Your task to perform on an android device: allow notifications from all sites in the chrome app Image 0: 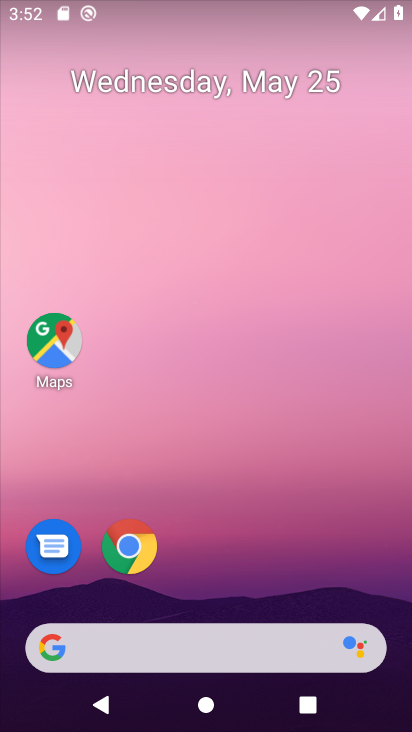
Step 0: drag from (231, 598) to (192, 257)
Your task to perform on an android device: allow notifications from all sites in the chrome app Image 1: 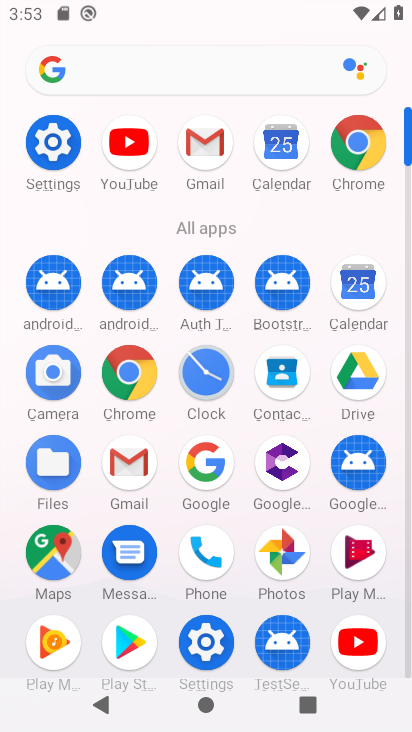
Step 1: click (54, 131)
Your task to perform on an android device: allow notifications from all sites in the chrome app Image 2: 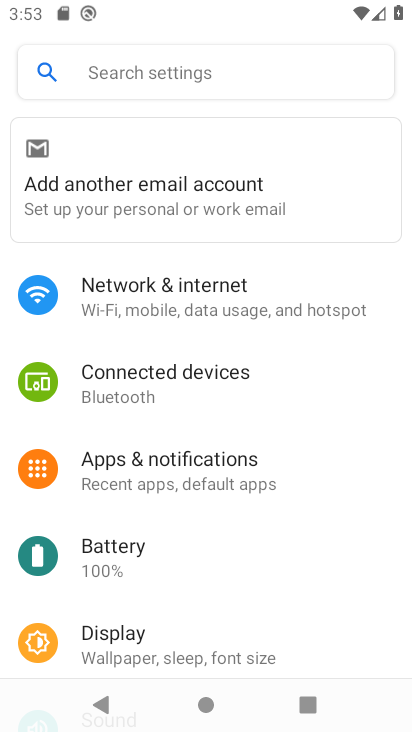
Step 2: press home button
Your task to perform on an android device: allow notifications from all sites in the chrome app Image 3: 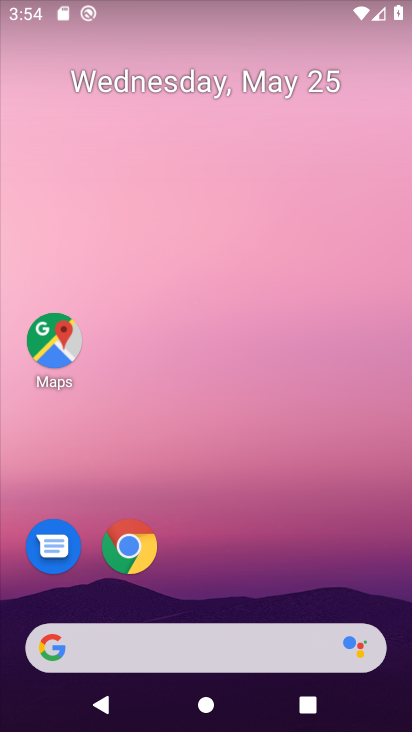
Step 3: click (140, 560)
Your task to perform on an android device: allow notifications from all sites in the chrome app Image 4: 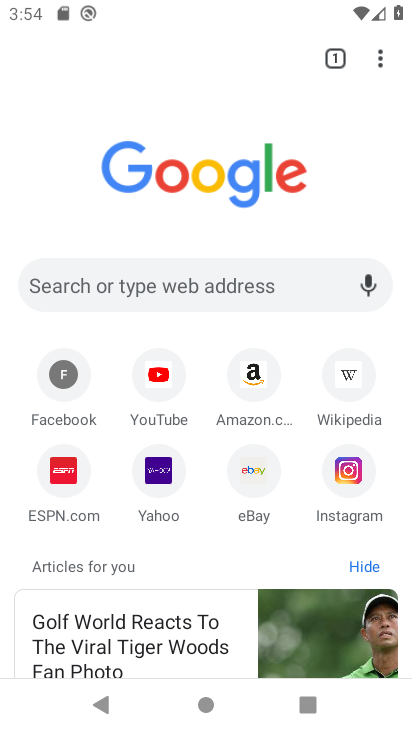
Step 4: click (380, 47)
Your task to perform on an android device: allow notifications from all sites in the chrome app Image 5: 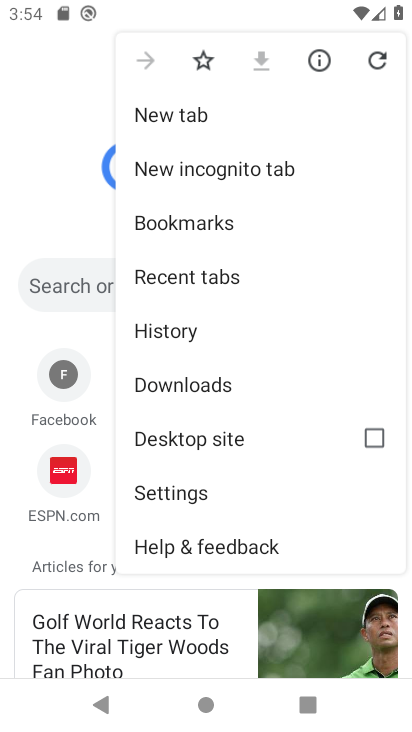
Step 5: click (204, 509)
Your task to perform on an android device: allow notifications from all sites in the chrome app Image 6: 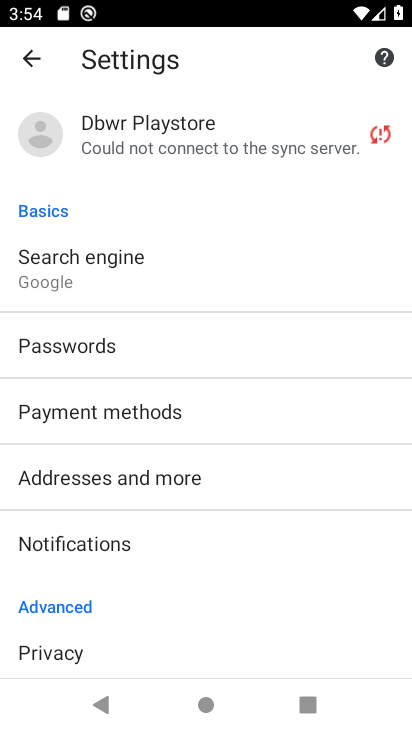
Step 6: drag from (197, 627) to (165, 229)
Your task to perform on an android device: allow notifications from all sites in the chrome app Image 7: 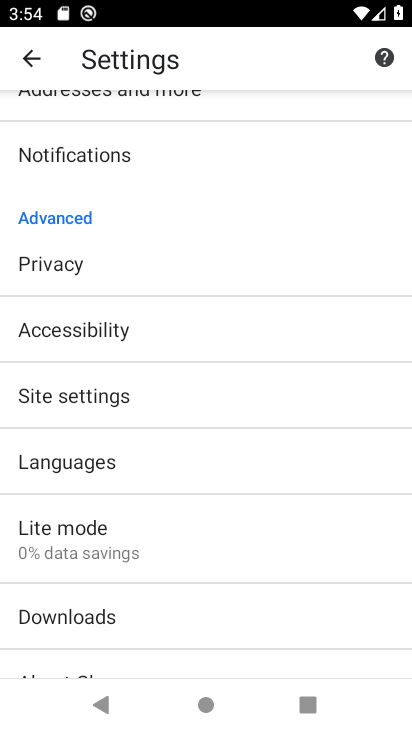
Step 7: click (147, 409)
Your task to perform on an android device: allow notifications from all sites in the chrome app Image 8: 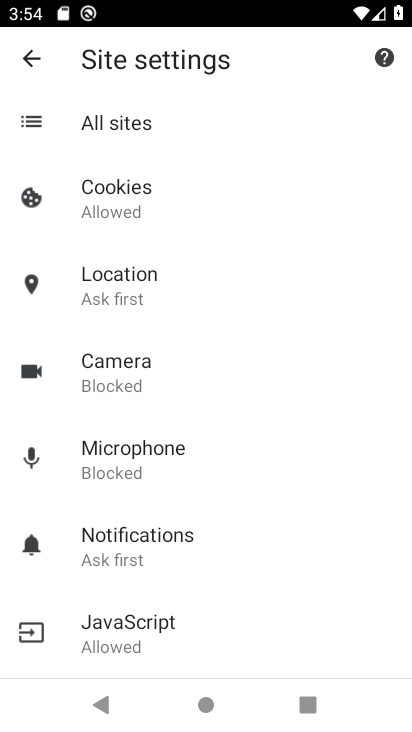
Step 8: click (182, 535)
Your task to perform on an android device: allow notifications from all sites in the chrome app Image 9: 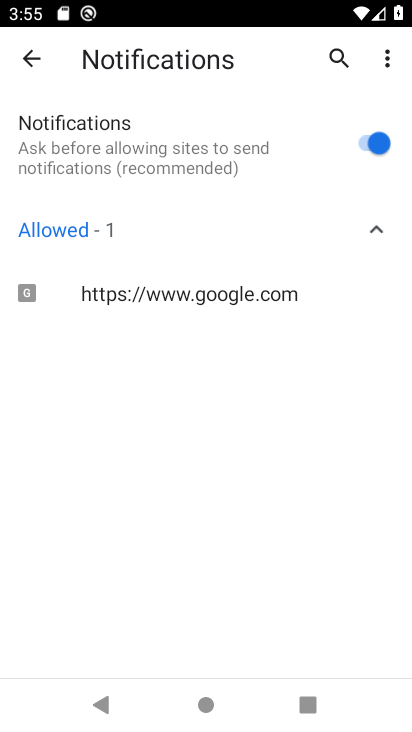
Step 9: task complete